Your task to perform on an android device: Open Chrome and go to the settings page Image 0: 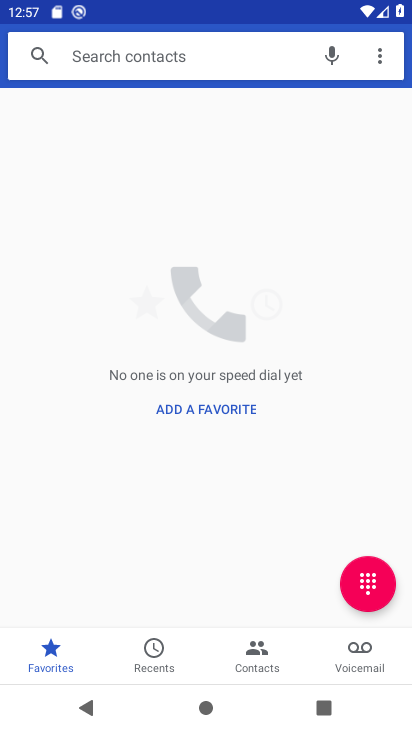
Step 0: press home button
Your task to perform on an android device: Open Chrome and go to the settings page Image 1: 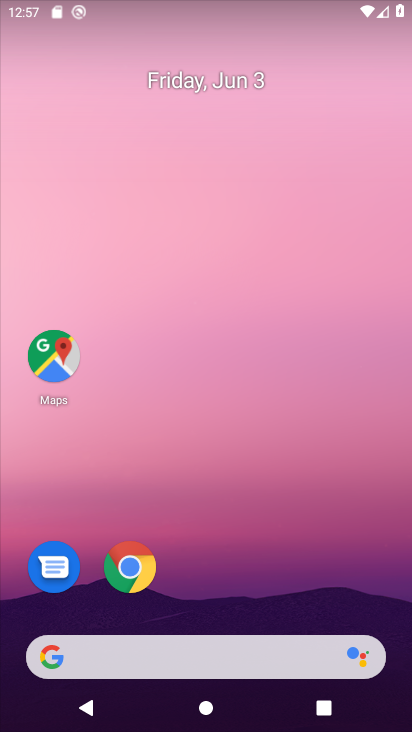
Step 1: drag from (211, 454) to (194, 300)
Your task to perform on an android device: Open Chrome and go to the settings page Image 2: 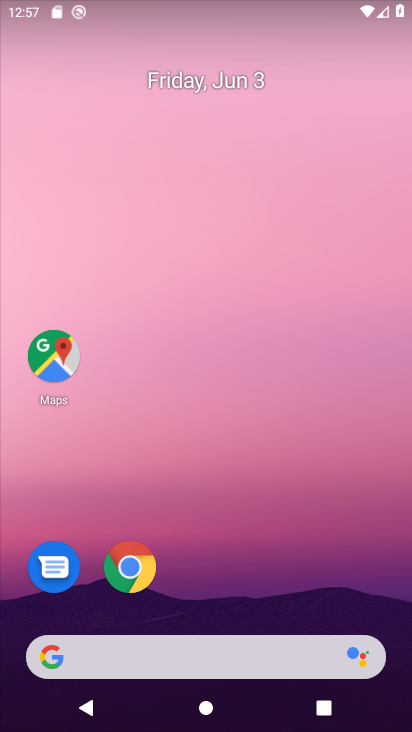
Step 2: drag from (217, 618) to (308, 230)
Your task to perform on an android device: Open Chrome and go to the settings page Image 3: 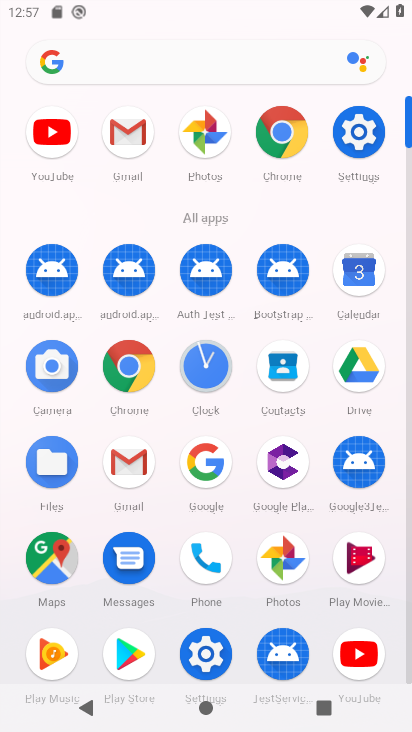
Step 3: click (282, 127)
Your task to perform on an android device: Open Chrome and go to the settings page Image 4: 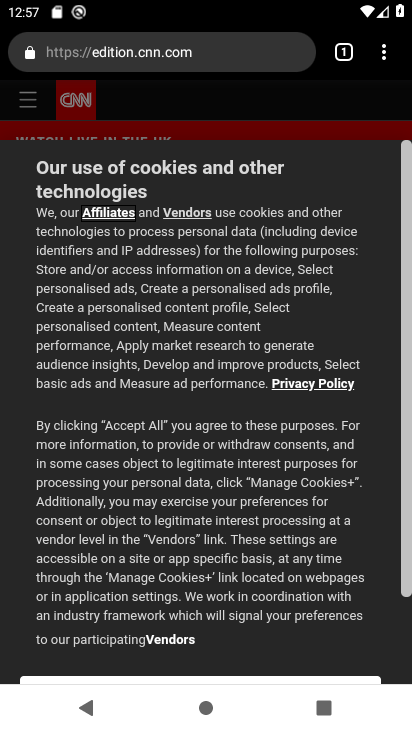
Step 4: click (380, 50)
Your task to perform on an android device: Open Chrome and go to the settings page Image 5: 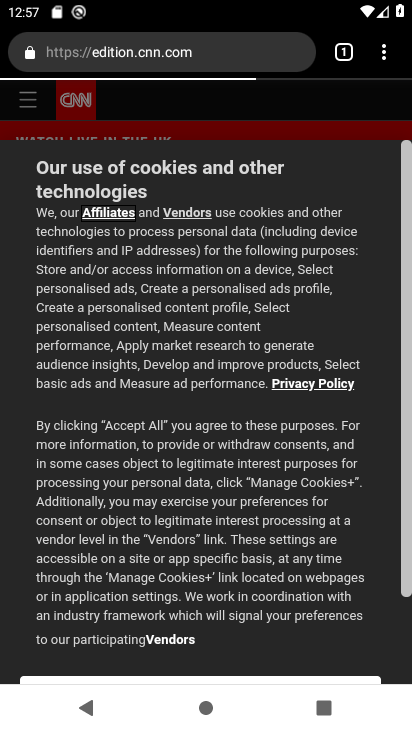
Step 5: click (386, 56)
Your task to perform on an android device: Open Chrome and go to the settings page Image 6: 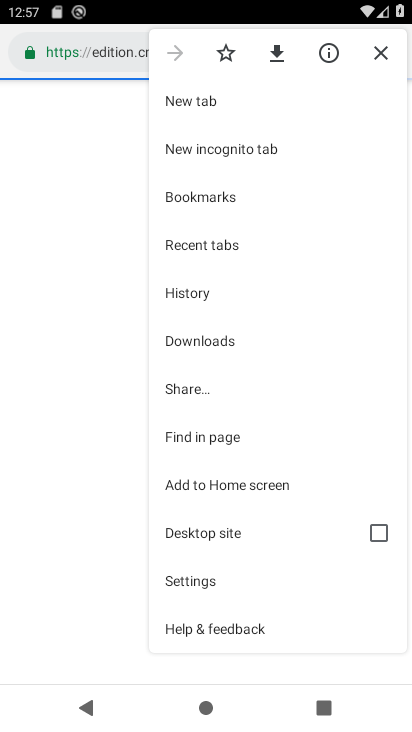
Step 6: click (222, 341)
Your task to perform on an android device: Open Chrome and go to the settings page Image 7: 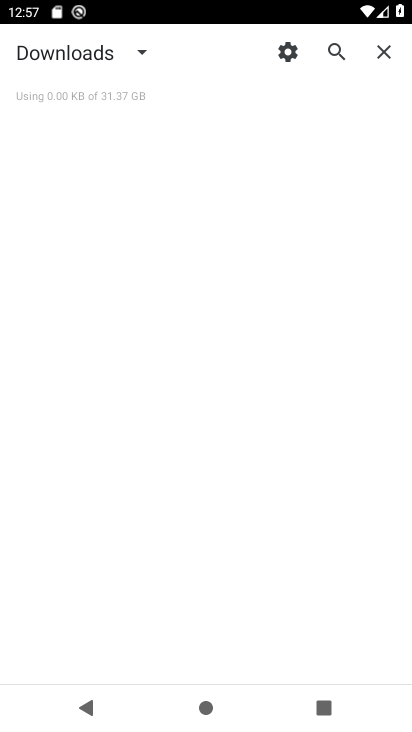
Step 7: click (141, 54)
Your task to perform on an android device: Open Chrome and go to the settings page Image 8: 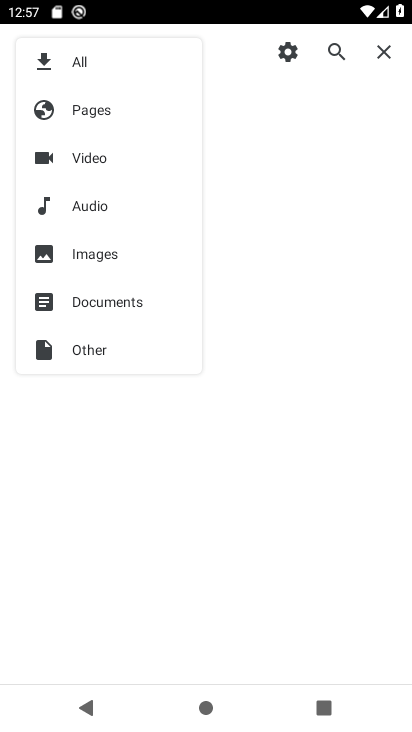
Step 8: click (91, 119)
Your task to perform on an android device: Open Chrome and go to the settings page Image 9: 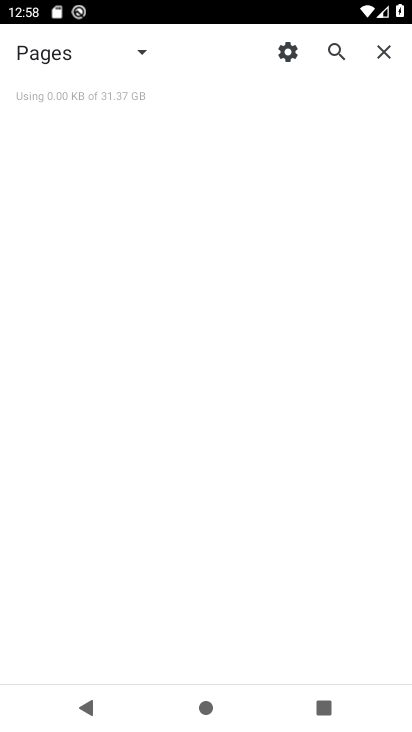
Step 9: task complete